Your task to perform on an android device: turn smart compose on in the gmail app Image 0: 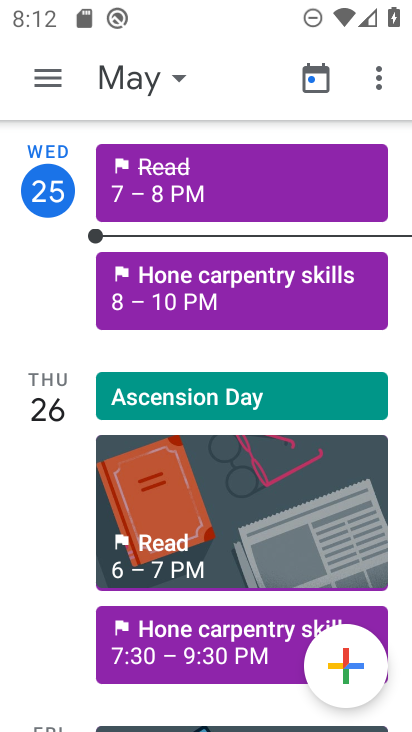
Step 0: press home button
Your task to perform on an android device: turn smart compose on in the gmail app Image 1: 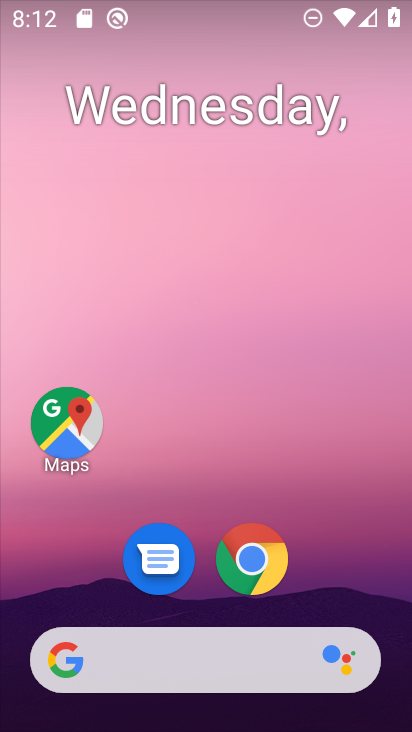
Step 1: drag from (236, 648) to (283, 156)
Your task to perform on an android device: turn smart compose on in the gmail app Image 2: 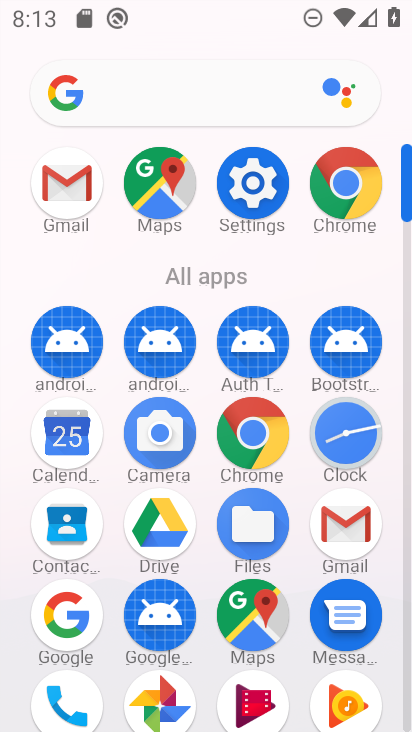
Step 2: click (359, 513)
Your task to perform on an android device: turn smart compose on in the gmail app Image 3: 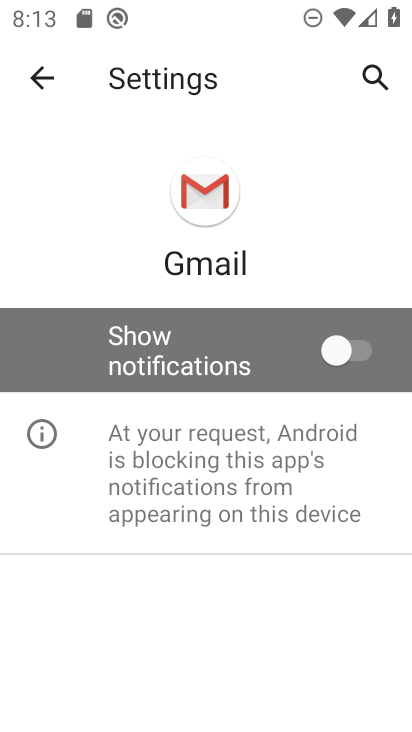
Step 3: click (42, 76)
Your task to perform on an android device: turn smart compose on in the gmail app Image 4: 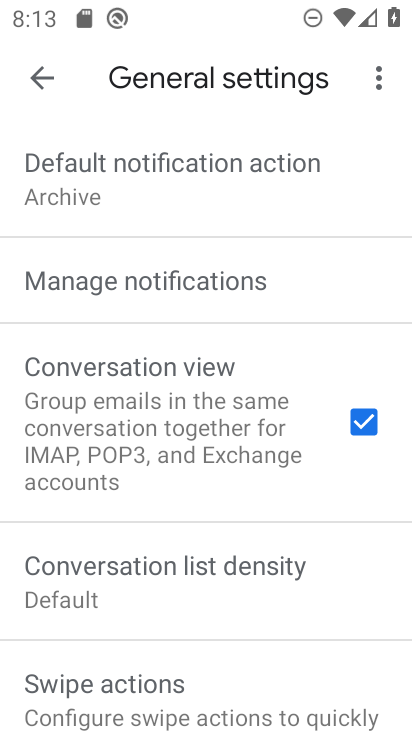
Step 4: click (45, 85)
Your task to perform on an android device: turn smart compose on in the gmail app Image 5: 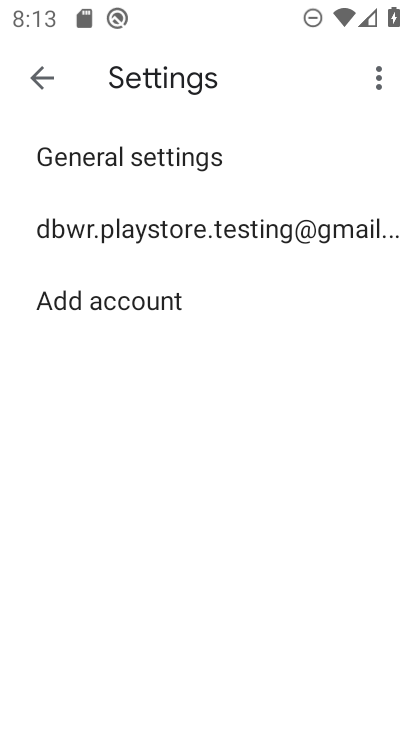
Step 5: click (120, 237)
Your task to perform on an android device: turn smart compose on in the gmail app Image 6: 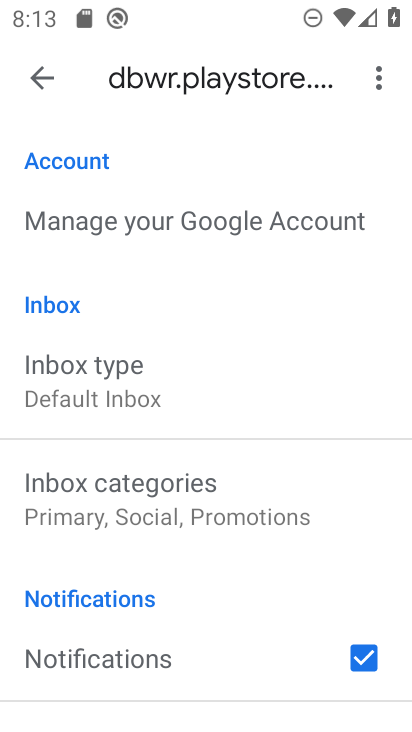
Step 6: task complete